Your task to perform on an android device: check out phone information Image 0: 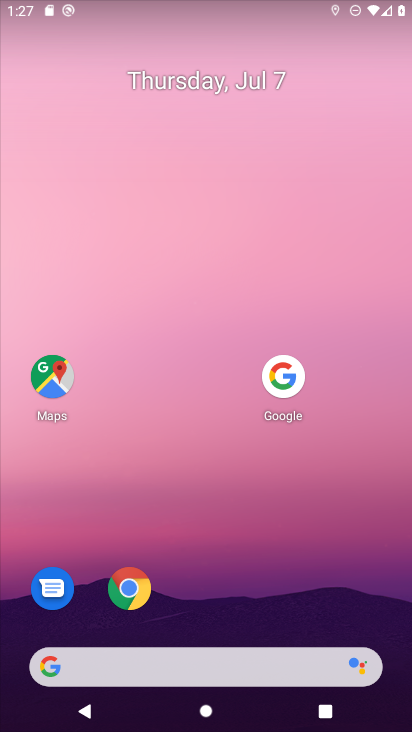
Step 0: drag from (201, 667) to (407, 270)
Your task to perform on an android device: check out phone information Image 1: 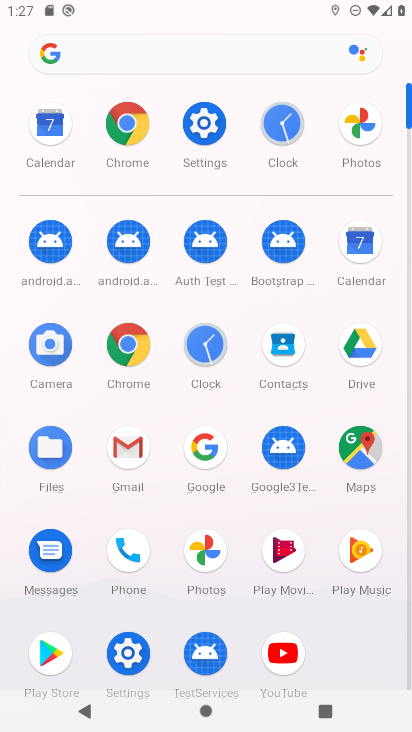
Step 1: click (197, 130)
Your task to perform on an android device: check out phone information Image 2: 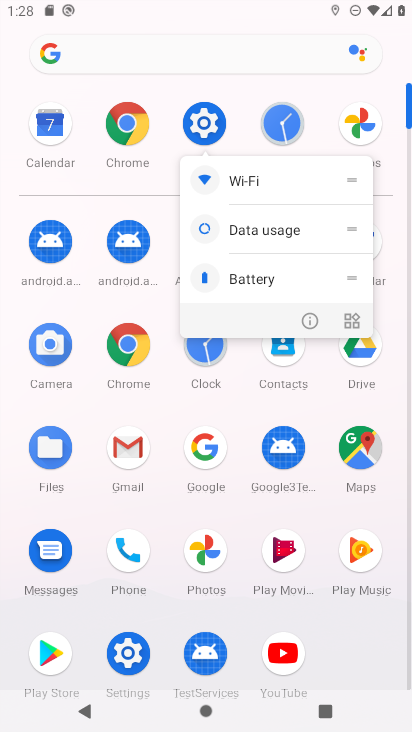
Step 2: click (208, 126)
Your task to perform on an android device: check out phone information Image 3: 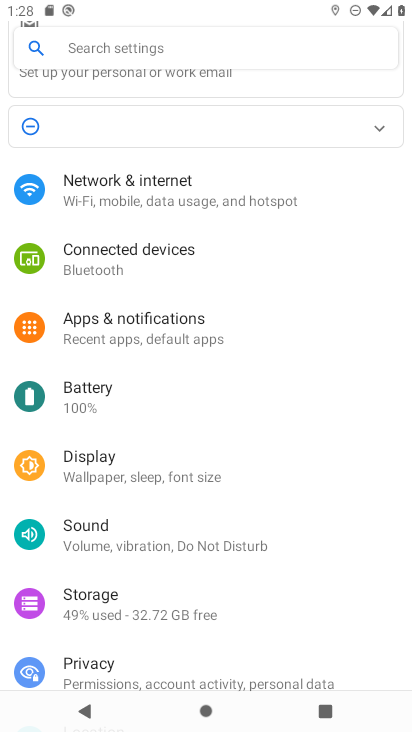
Step 3: drag from (250, 531) to (382, 385)
Your task to perform on an android device: check out phone information Image 4: 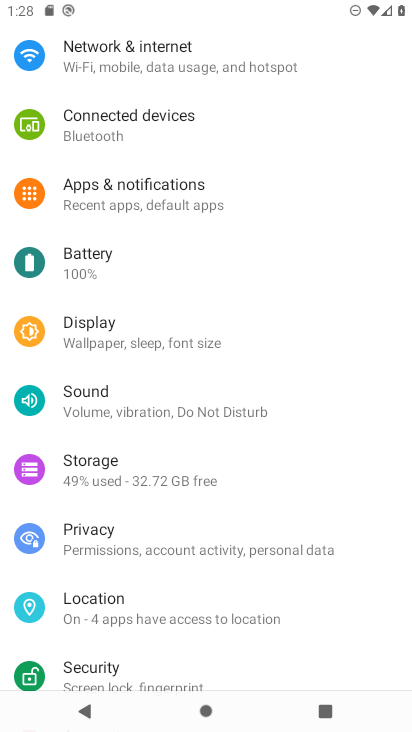
Step 4: drag from (188, 624) to (376, 112)
Your task to perform on an android device: check out phone information Image 5: 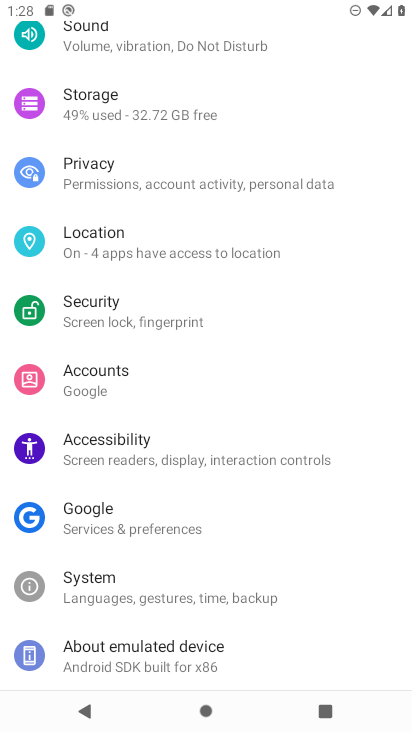
Step 5: click (126, 651)
Your task to perform on an android device: check out phone information Image 6: 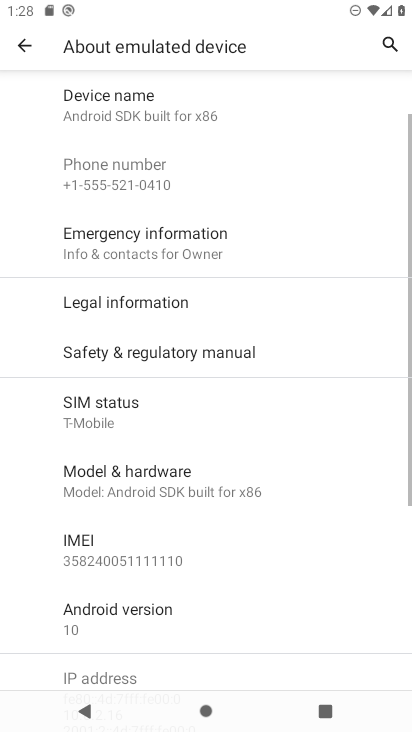
Step 6: drag from (230, 184) to (161, 601)
Your task to perform on an android device: check out phone information Image 7: 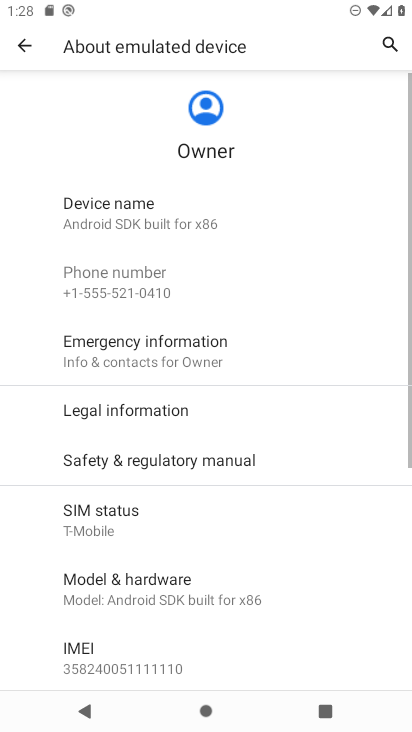
Step 7: click (121, 201)
Your task to perform on an android device: check out phone information Image 8: 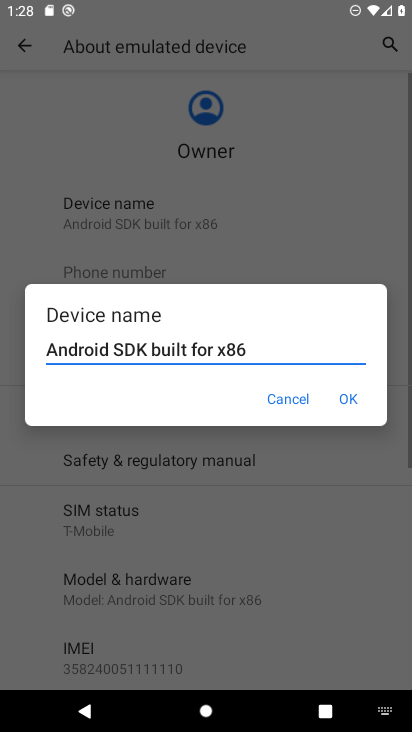
Step 8: click (361, 404)
Your task to perform on an android device: check out phone information Image 9: 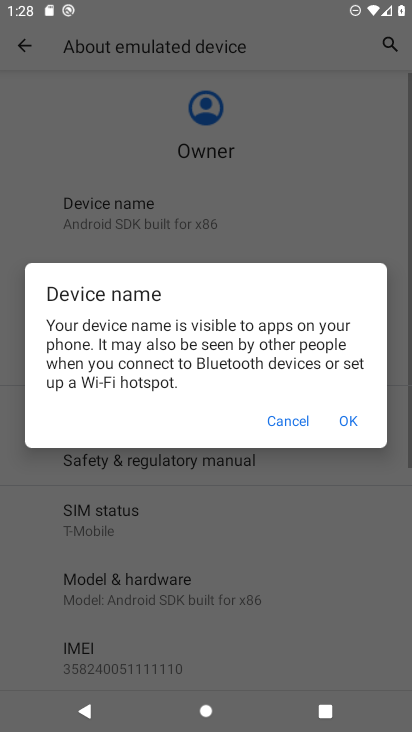
Step 9: task complete